Your task to perform on an android device: Clear the cart on newegg. Add "usb-a to usb-b" to the cart on newegg, then select checkout. Image 0: 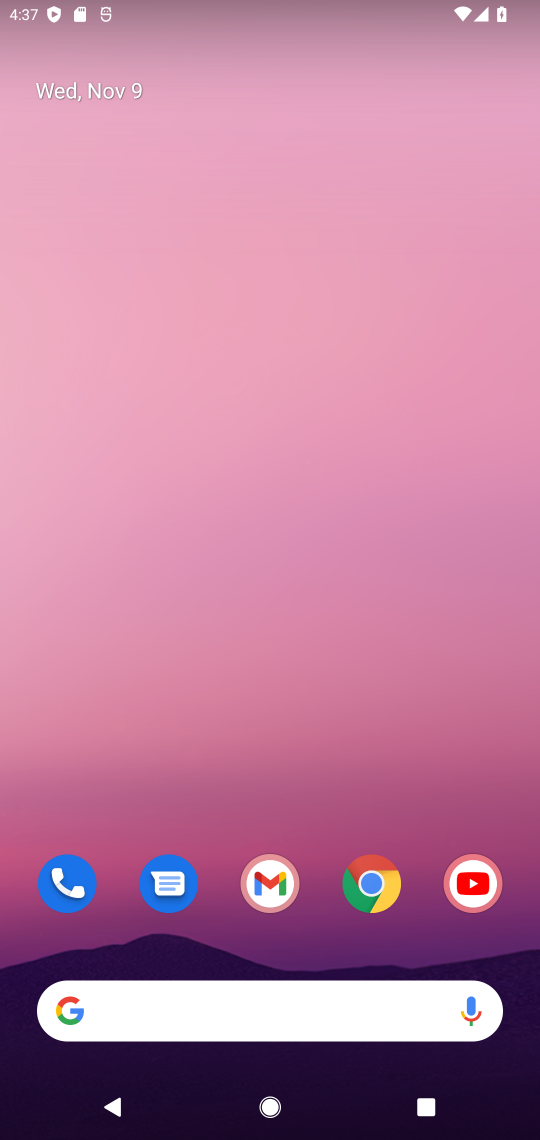
Step 0: click (373, 885)
Your task to perform on an android device: Clear the cart on newegg. Add "usb-a to usb-b" to the cart on newegg, then select checkout. Image 1: 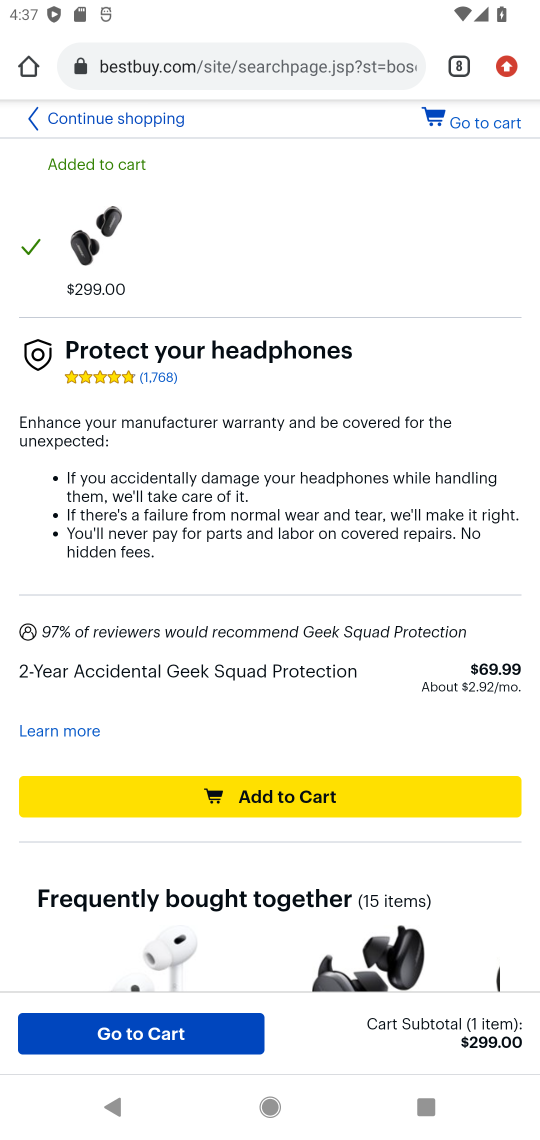
Step 1: click (457, 70)
Your task to perform on an android device: Clear the cart on newegg. Add "usb-a to usb-b" to the cart on newegg, then select checkout. Image 2: 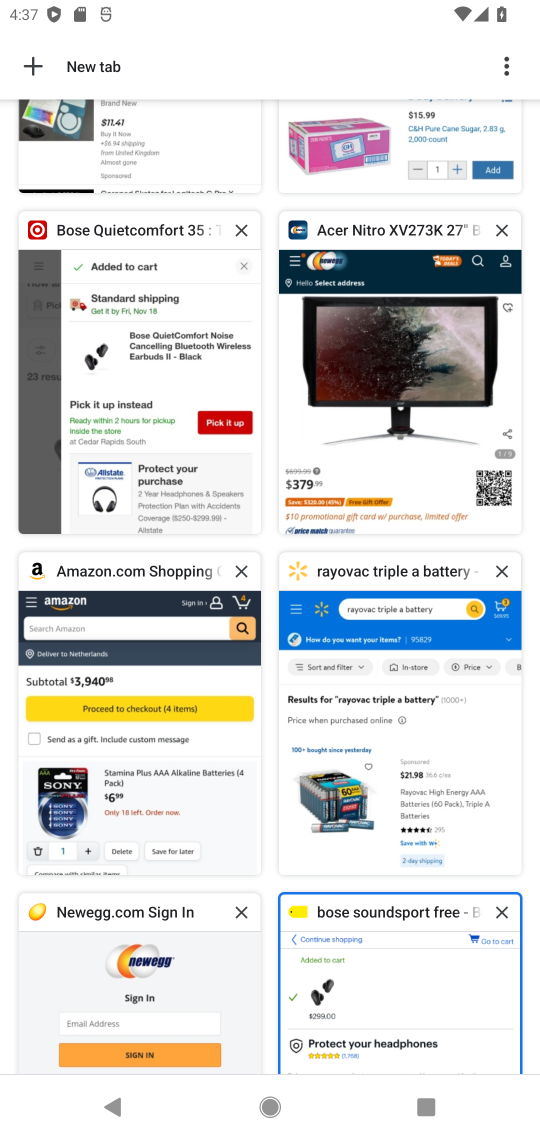
Step 2: click (386, 304)
Your task to perform on an android device: Clear the cart on newegg. Add "usb-a to usb-b" to the cart on newegg, then select checkout. Image 3: 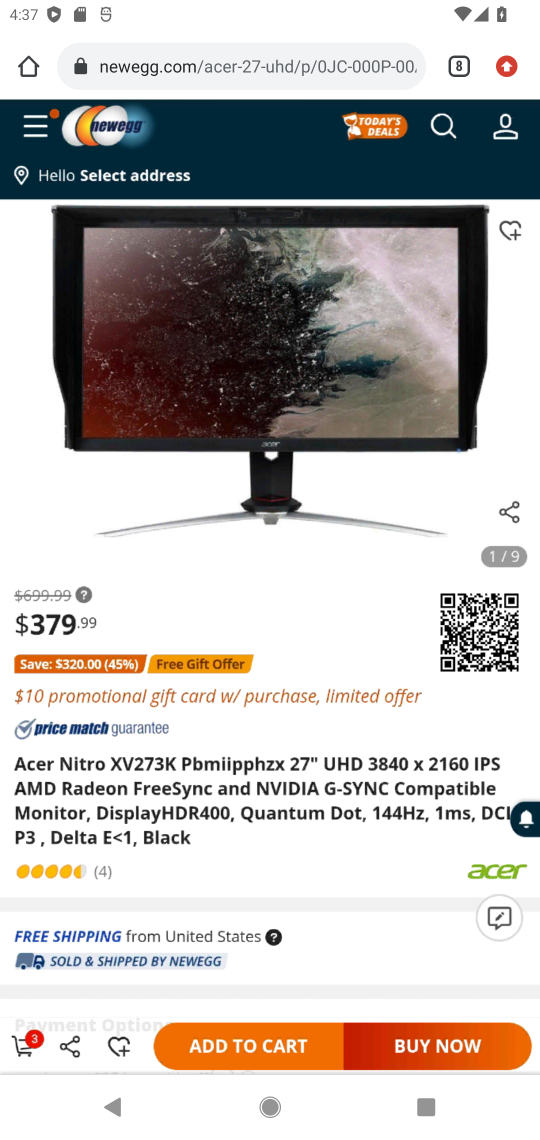
Step 3: click (18, 1045)
Your task to perform on an android device: Clear the cart on newegg. Add "usb-a to usb-b" to the cart on newegg, then select checkout. Image 4: 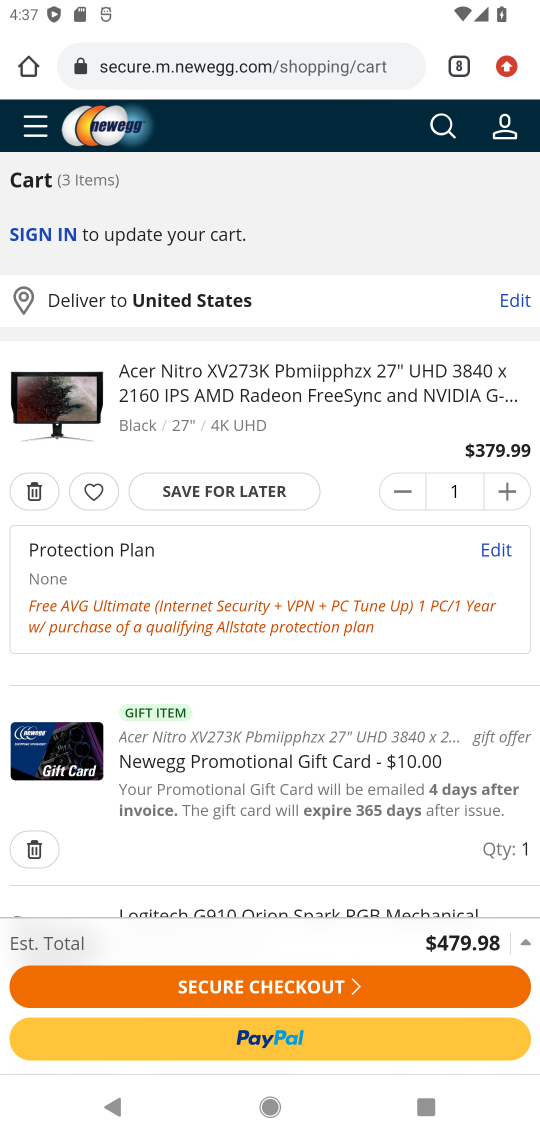
Step 4: click (36, 497)
Your task to perform on an android device: Clear the cart on newegg. Add "usb-a to usb-b" to the cart on newegg, then select checkout. Image 5: 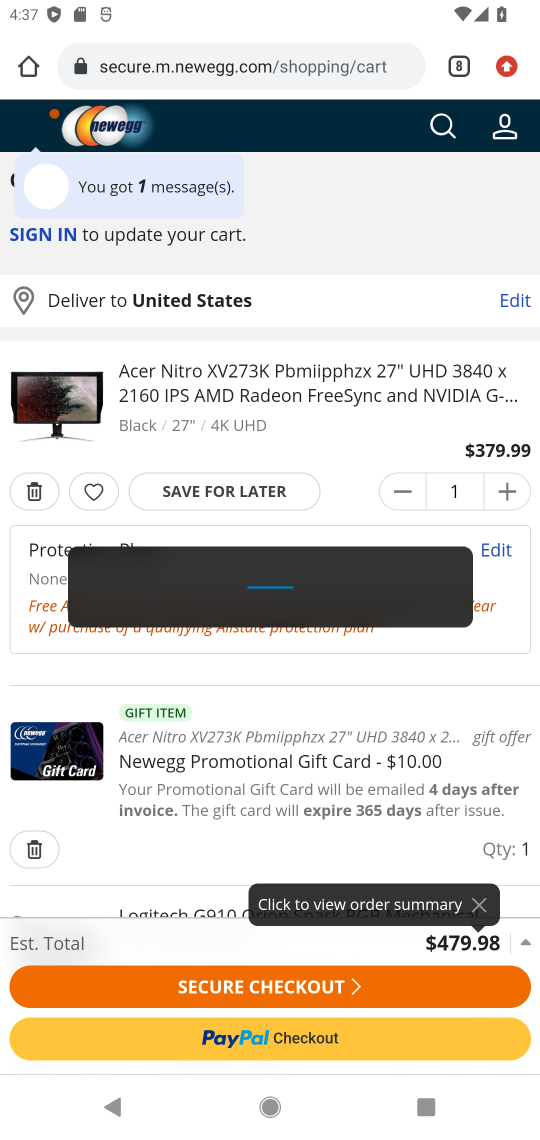
Step 5: click (34, 499)
Your task to perform on an android device: Clear the cart on newegg. Add "usb-a to usb-b" to the cart on newegg, then select checkout. Image 6: 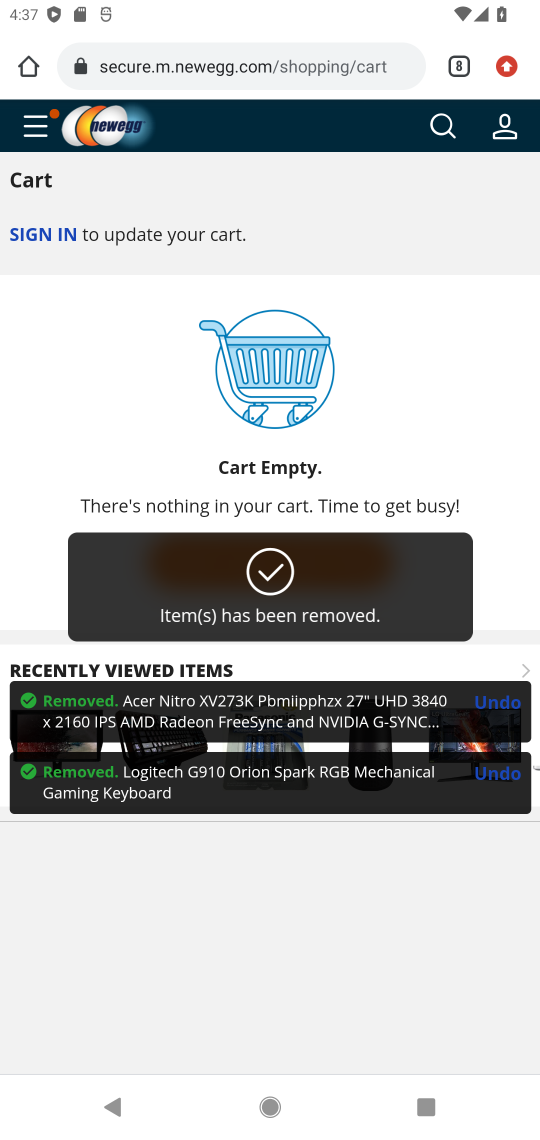
Step 6: click (29, 524)
Your task to perform on an android device: Clear the cart on newegg. Add "usb-a to usb-b" to the cart on newegg, then select checkout. Image 7: 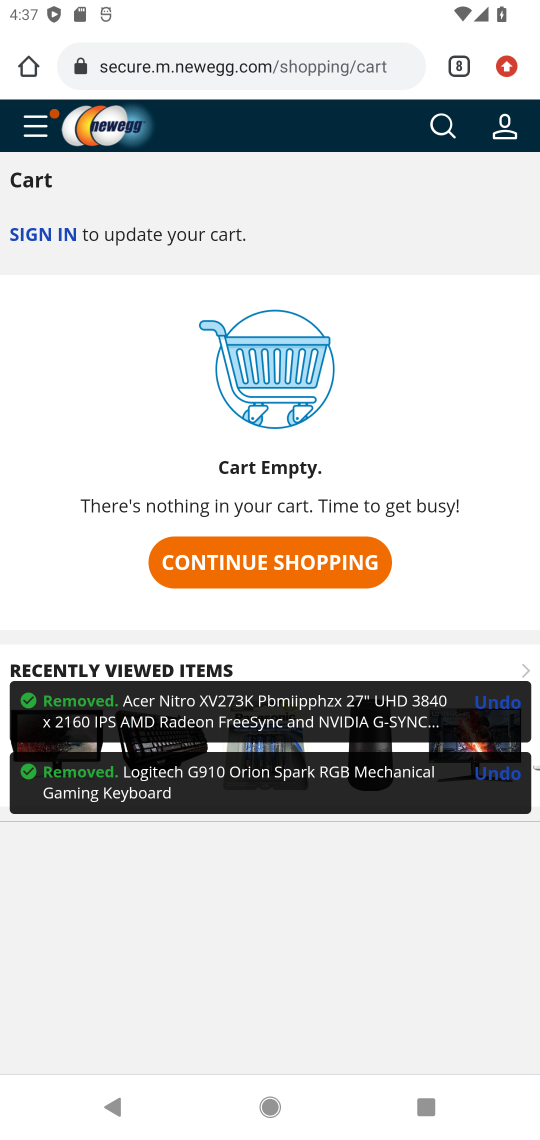
Step 7: click (443, 130)
Your task to perform on an android device: Clear the cart on newegg. Add "usb-a to usb-b" to the cart on newegg, then select checkout. Image 8: 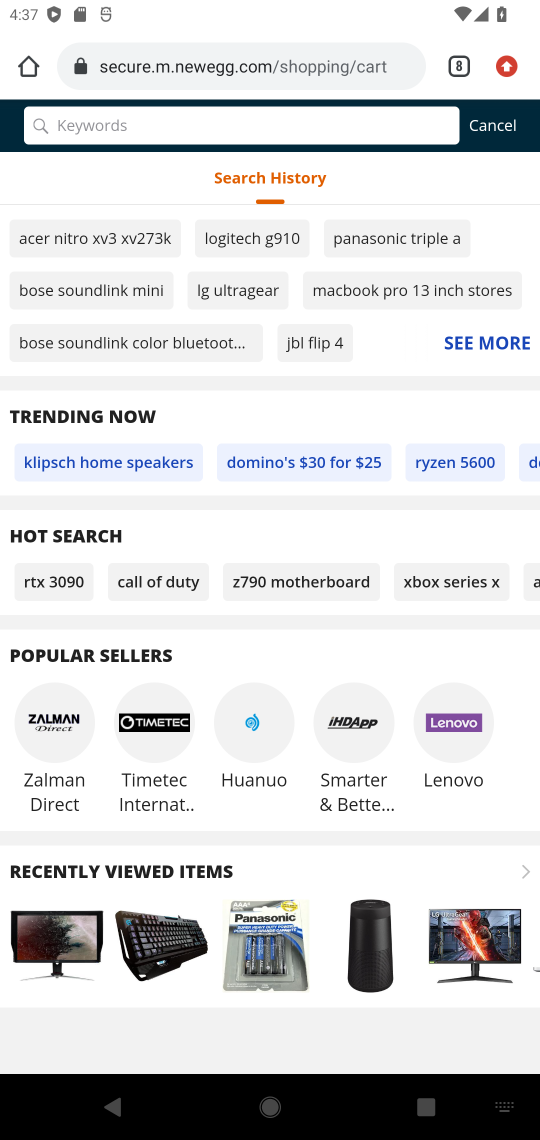
Step 8: type "usb-a to usb-b"
Your task to perform on an android device: Clear the cart on newegg. Add "usb-a to usb-b" to the cart on newegg, then select checkout. Image 9: 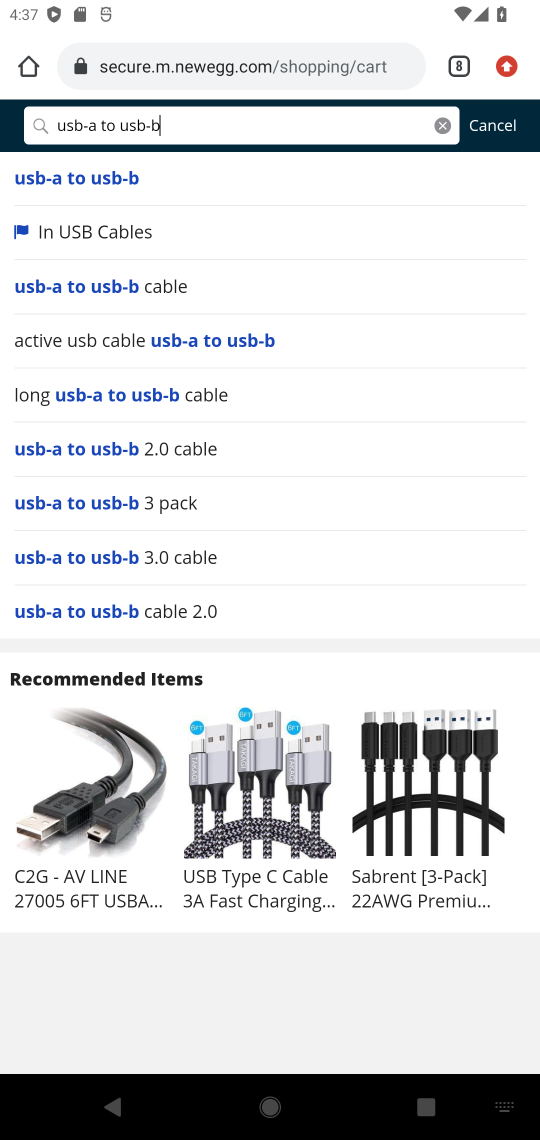
Step 9: click (98, 178)
Your task to perform on an android device: Clear the cart on newegg. Add "usb-a to usb-b" to the cart on newegg, then select checkout. Image 10: 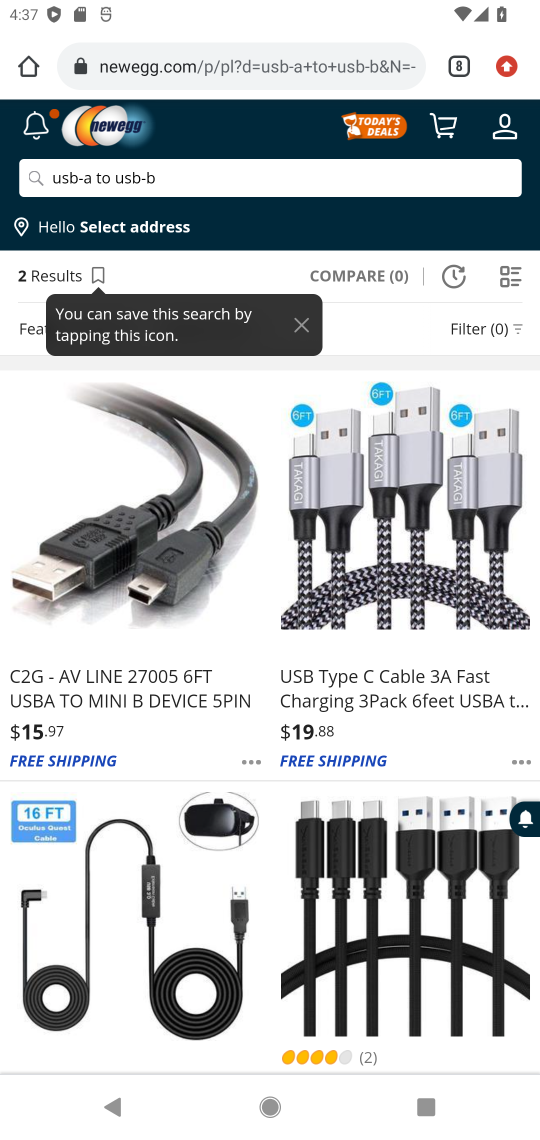
Step 10: click (310, 684)
Your task to perform on an android device: Clear the cart on newegg. Add "usb-a to usb-b" to the cart on newegg, then select checkout. Image 11: 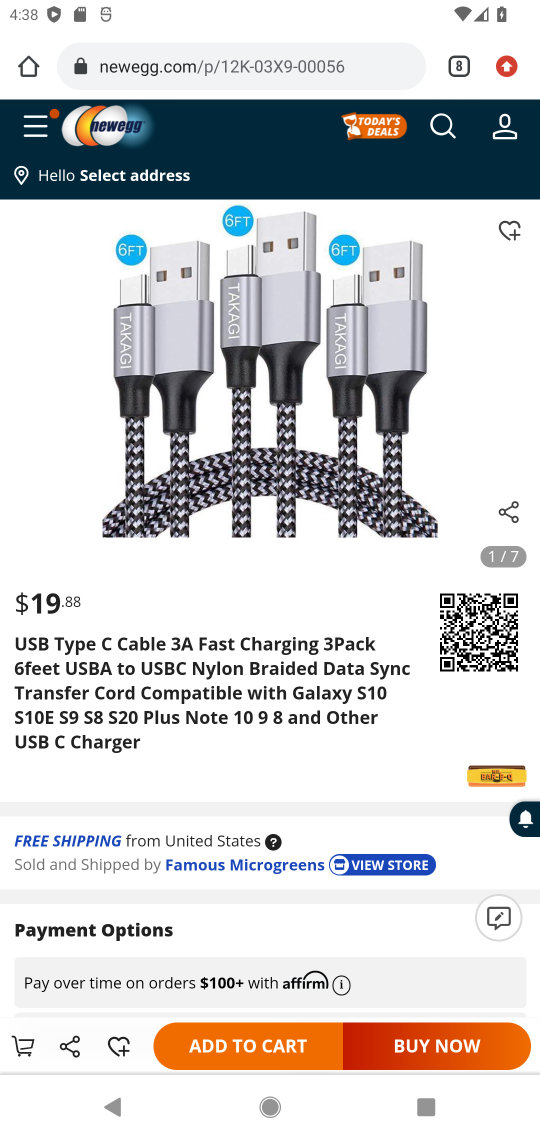
Step 11: click (215, 1045)
Your task to perform on an android device: Clear the cart on newegg. Add "usb-a to usb-b" to the cart on newegg, then select checkout. Image 12: 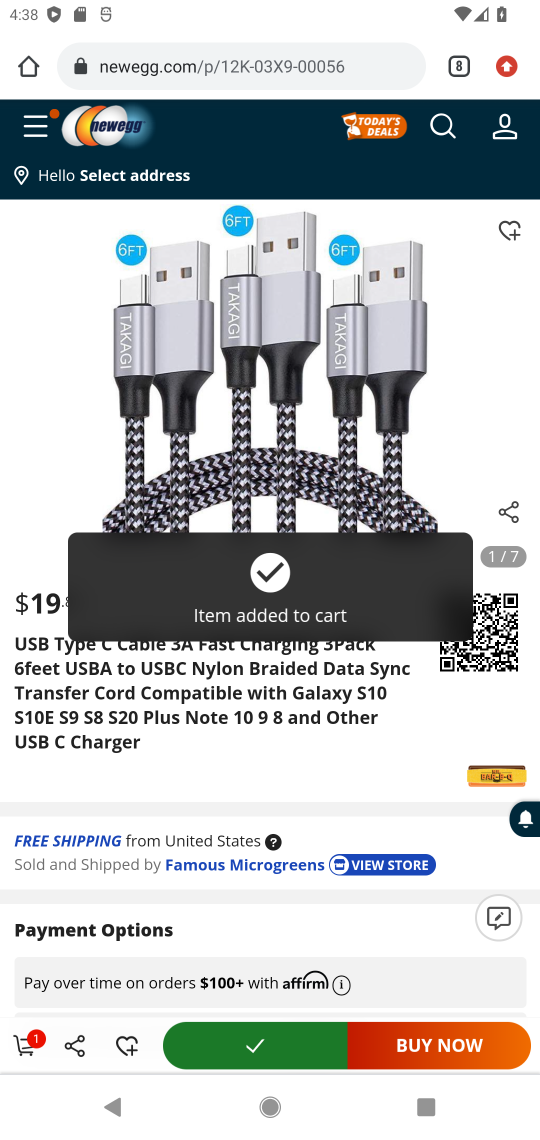
Step 12: click (27, 1041)
Your task to perform on an android device: Clear the cart on newegg. Add "usb-a to usb-b" to the cart on newegg, then select checkout. Image 13: 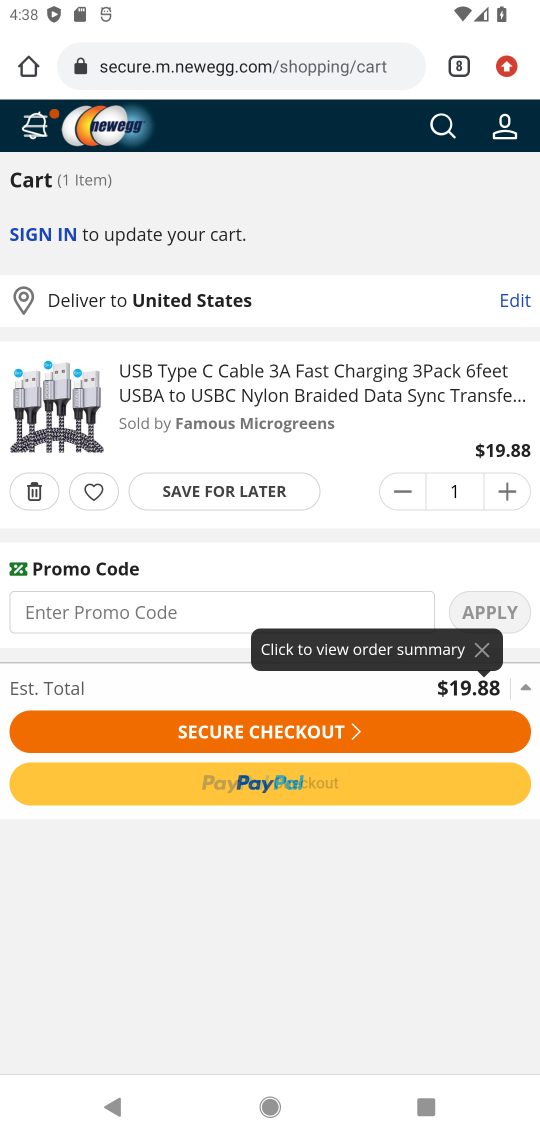
Step 13: click (272, 727)
Your task to perform on an android device: Clear the cart on newegg. Add "usb-a to usb-b" to the cart on newegg, then select checkout. Image 14: 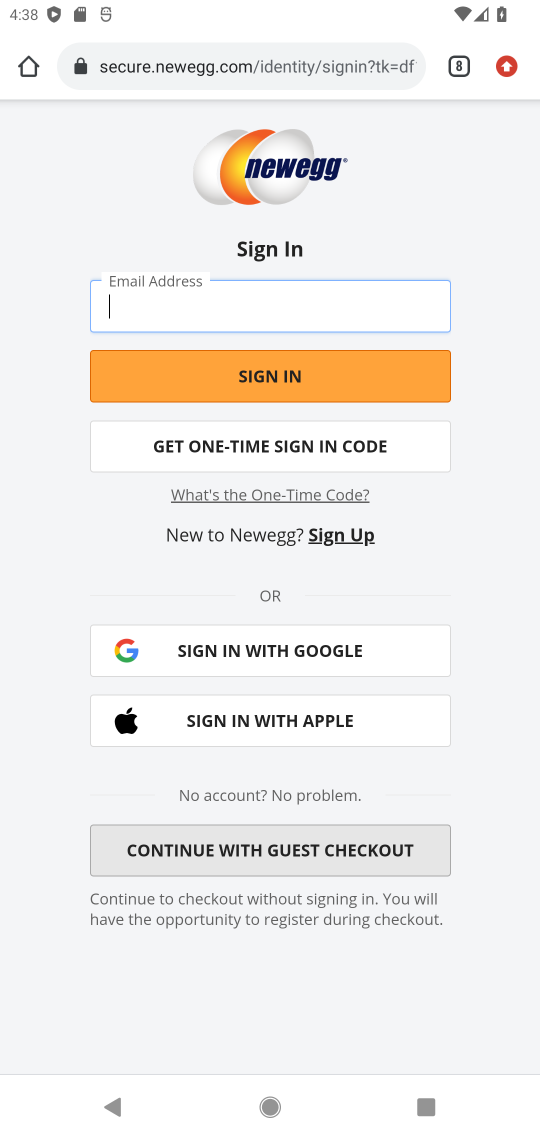
Step 14: task complete